Your task to perform on an android device: Toggle the flashlight Image 0: 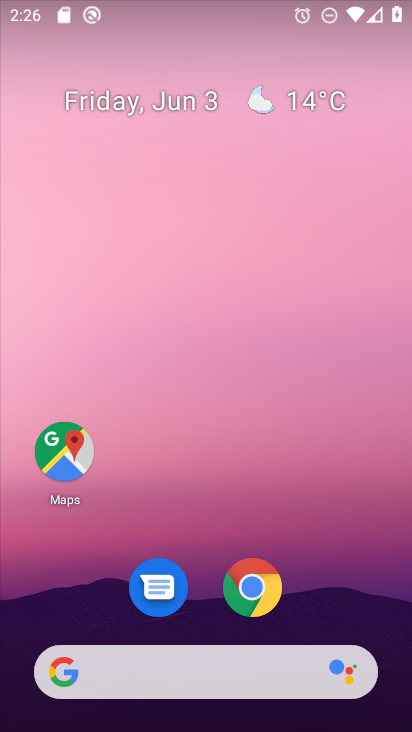
Step 0: drag from (329, 382) to (393, 450)
Your task to perform on an android device: Toggle the flashlight Image 1: 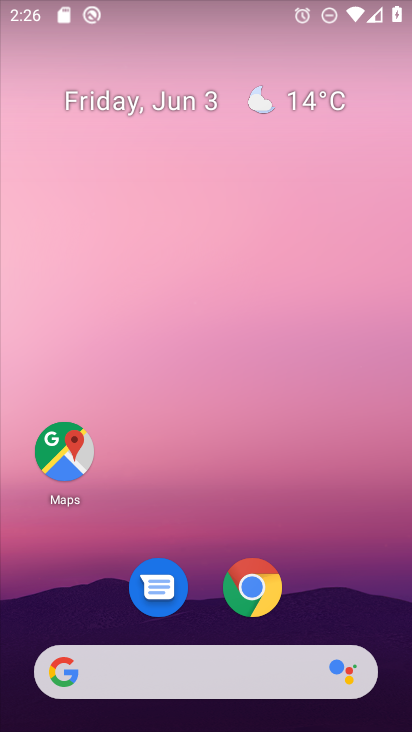
Step 1: drag from (225, 482) to (313, 5)
Your task to perform on an android device: Toggle the flashlight Image 2: 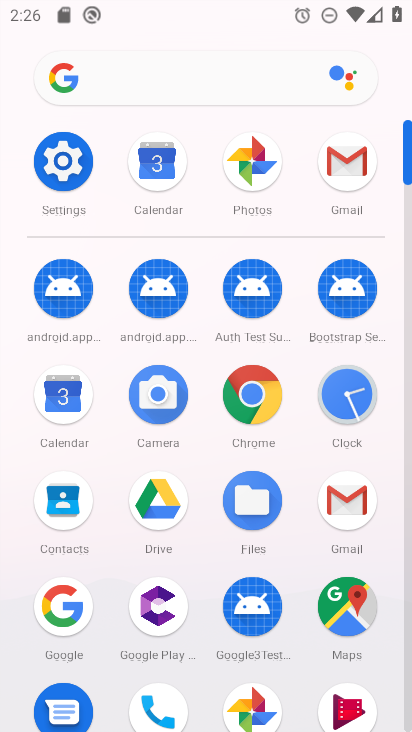
Step 2: click (53, 156)
Your task to perform on an android device: Toggle the flashlight Image 3: 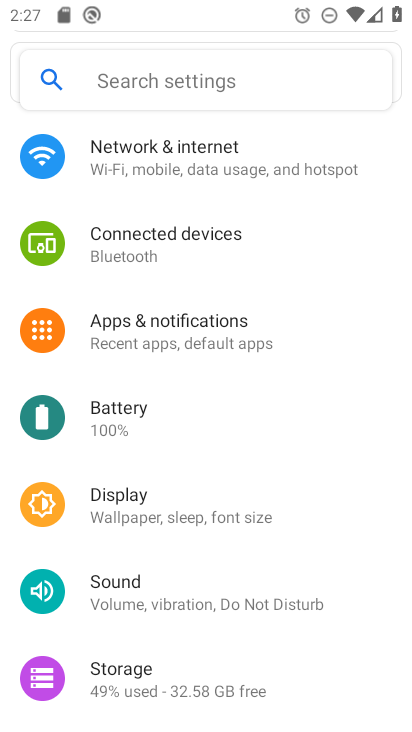
Step 3: task complete